Your task to perform on an android device: change the clock display to digital Image 0: 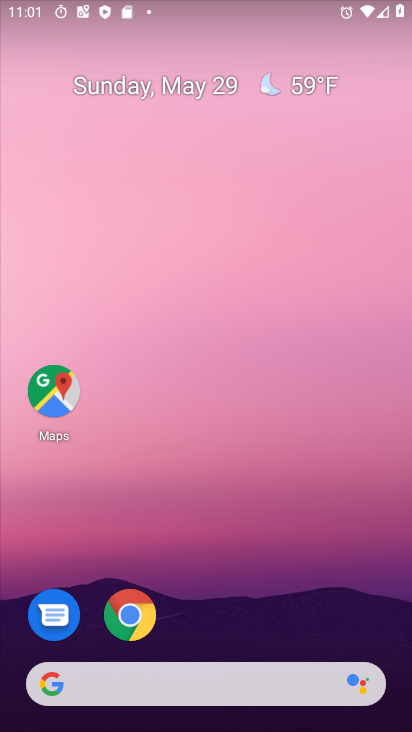
Step 0: drag from (305, 613) to (294, 197)
Your task to perform on an android device: change the clock display to digital Image 1: 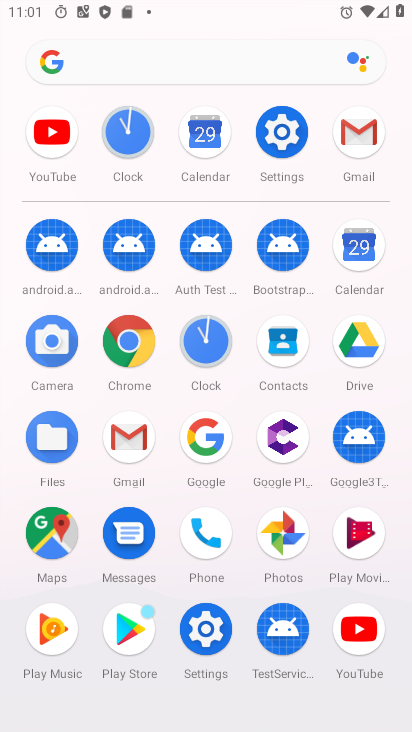
Step 1: click (205, 344)
Your task to perform on an android device: change the clock display to digital Image 2: 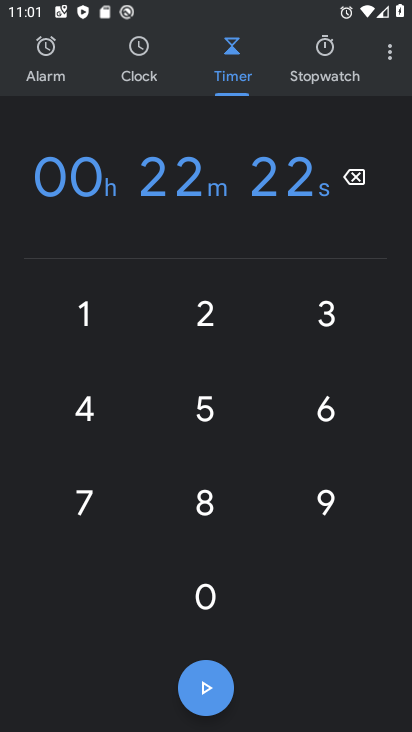
Step 2: click (383, 50)
Your task to perform on an android device: change the clock display to digital Image 3: 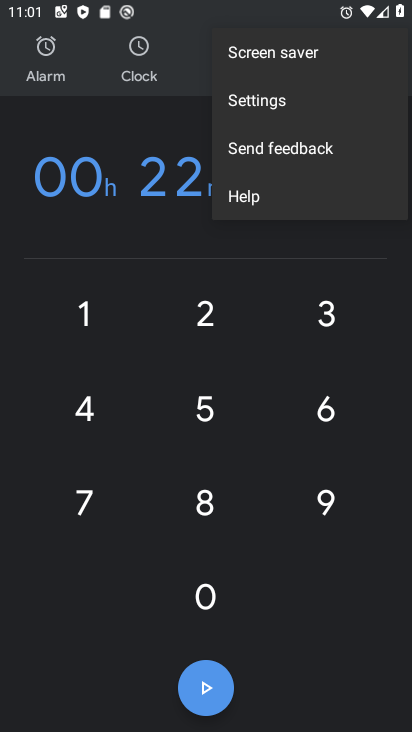
Step 3: click (310, 94)
Your task to perform on an android device: change the clock display to digital Image 4: 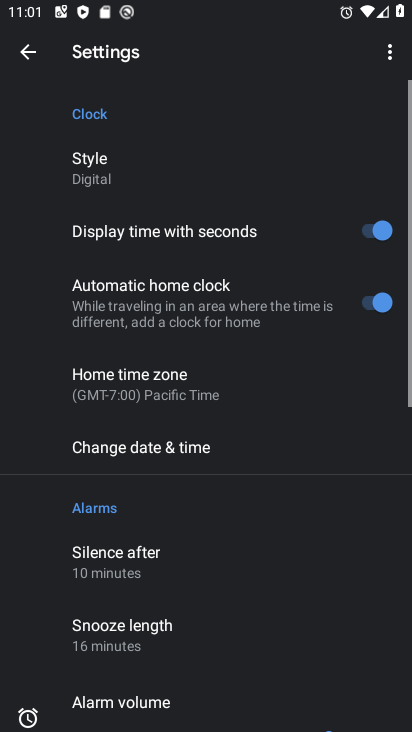
Step 4: click (211, 158)
Your task to perform on an android device: change the clock display to digital Image 5: 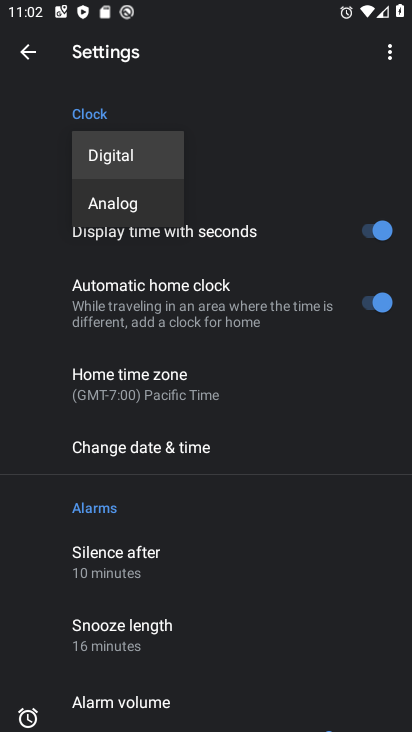
Step 5: task complete